Your task to perform on an android device: Open calendar and show me the fourth week of next month Image 0: 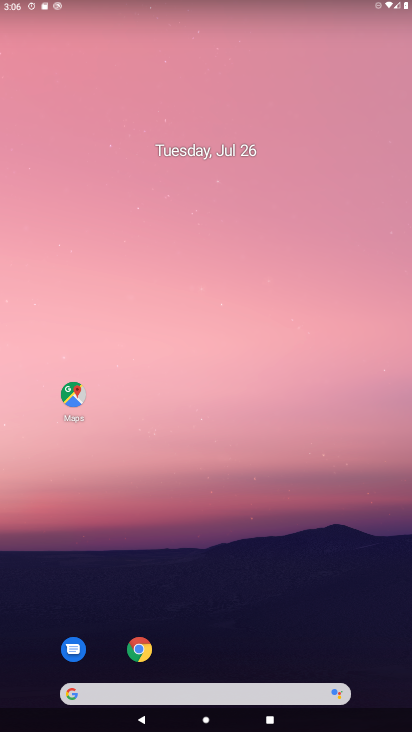
Step 0: drag from (336, 640) to (180, 14)
Your task to perform on an android device: Open calendar and show me the fourth week of next month Image 1: 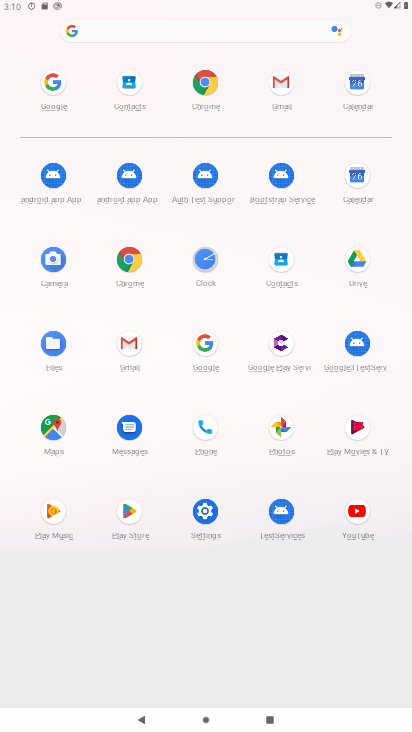
Step 1: click (348, 177)
Your task to perform on an android device: Open calendar and show me the fourth week of next month Image 2: 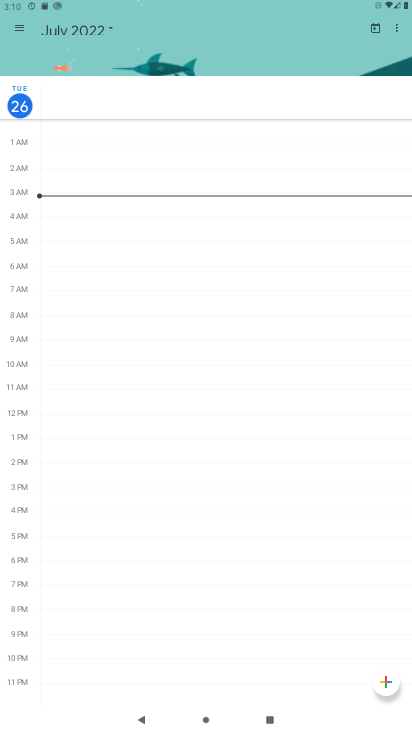
Step 2: click (68, 39)
Your task to perform on an android device: Open calendar and show me the fourth week of next month Image 3: 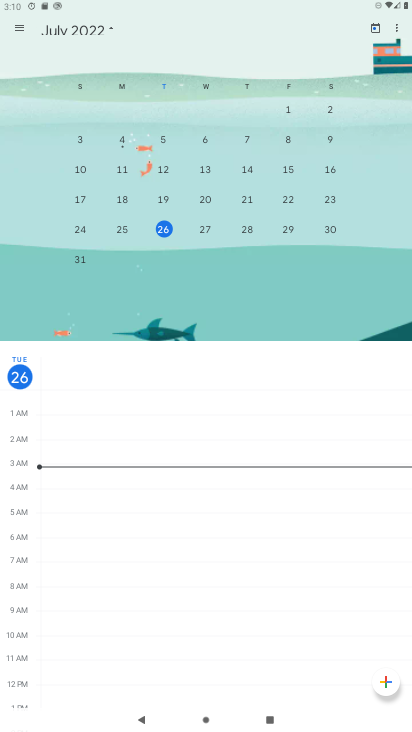
Step 3: drag from (343, 186) to (47, 137)
Your task to perform on an android device: Open calendar and show me the fourth week of next month Image 4: 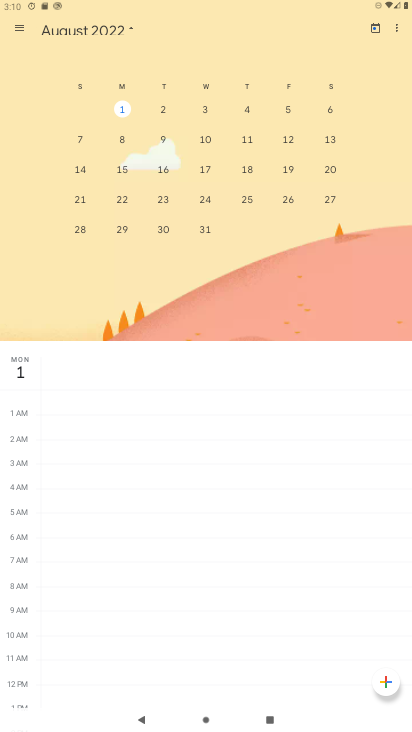
Step 4: click (76, 226)
Your task to perform on an android device: Open calendar and show me the fourth week of next month Image 5: 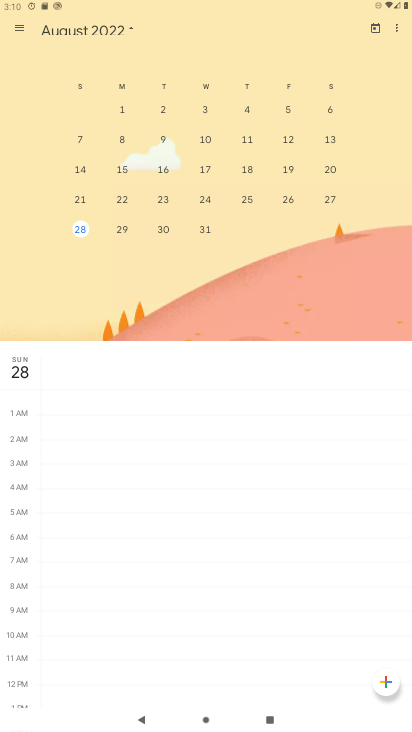
Step 5: task complete